Your task to perform on an android device: turn off wifi Image 0: 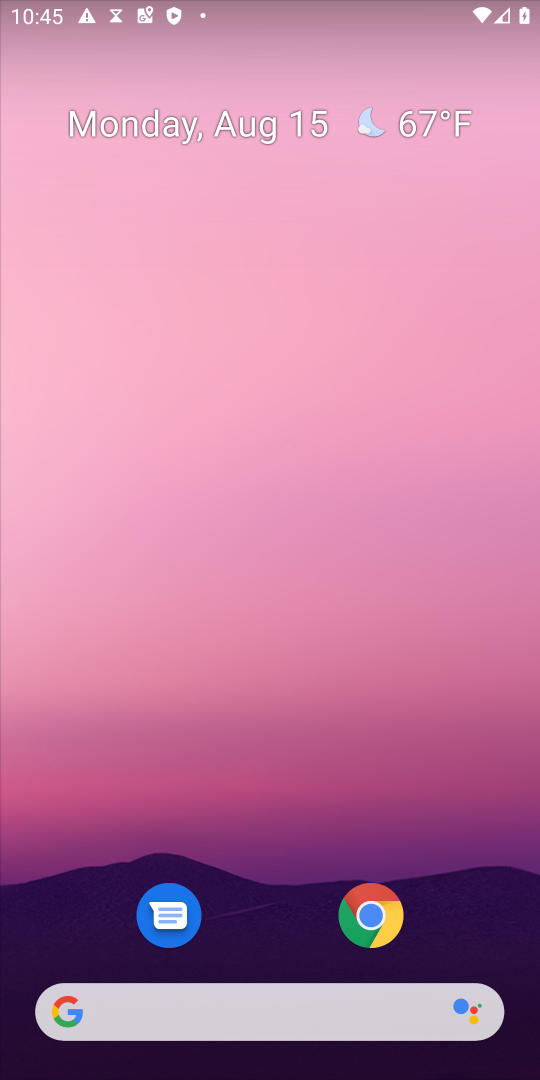
Step 0: press home button
Your task to perform on an android device: turn off wifi Image 1: 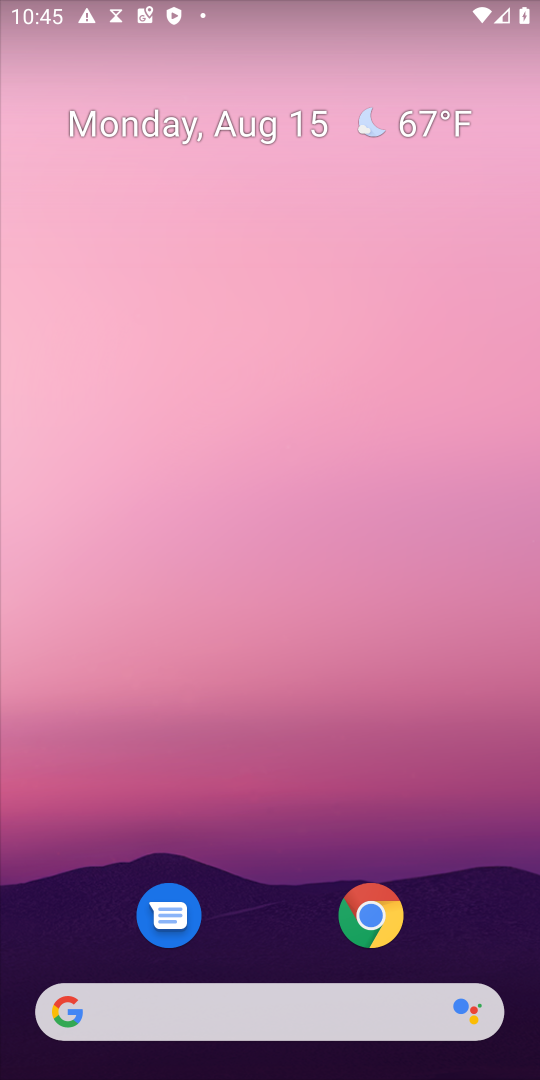
Step 1: drag from (253, 8) to (327, 776)
Your task to perform on an android device: turn off wifi Image 2: 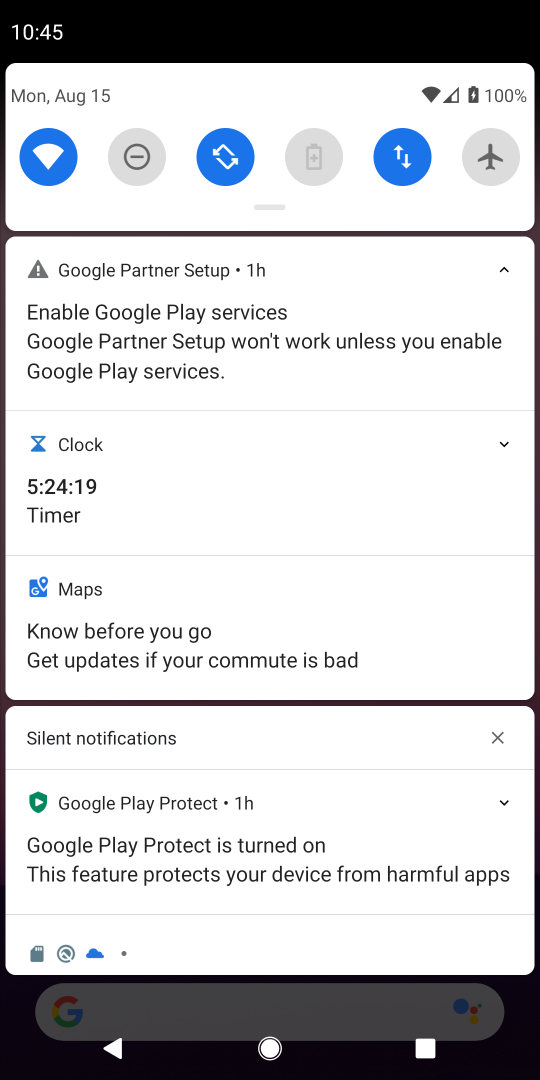
Step 2: click (56, 162)
Your task to perform on an android device: turn off wifi Image 3: 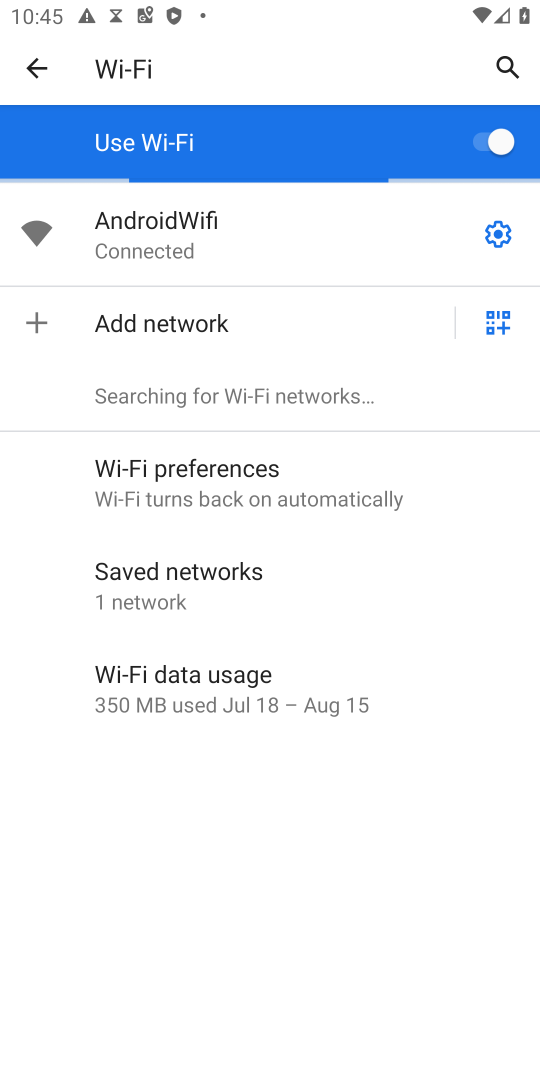
Step 3: click (500, 134)
Your task to perform on an android device: turn off wifi Image 4: 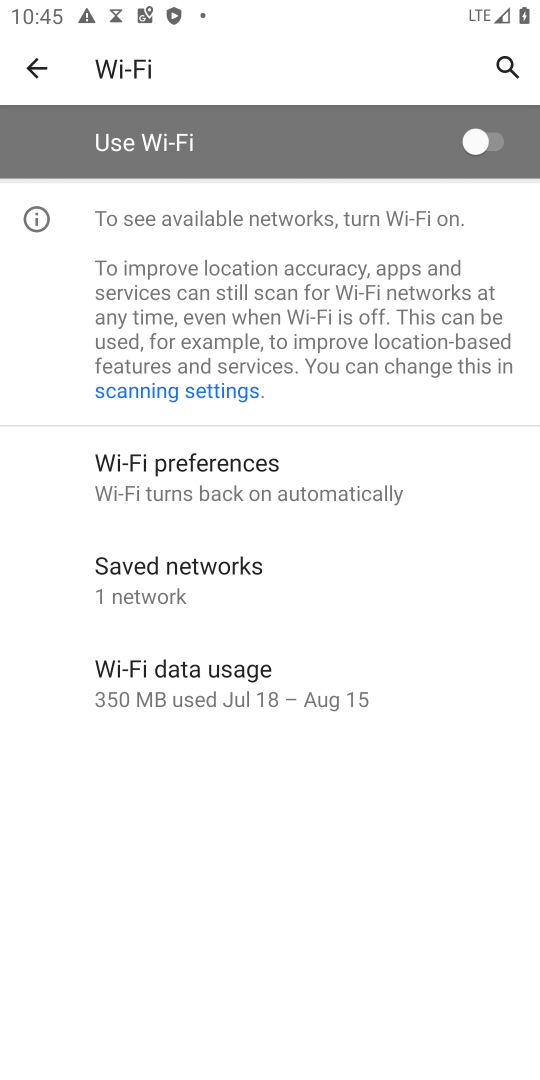
Step 4: task complete